Your task to perform on an android device: Open settings on Google Maps Image 0: 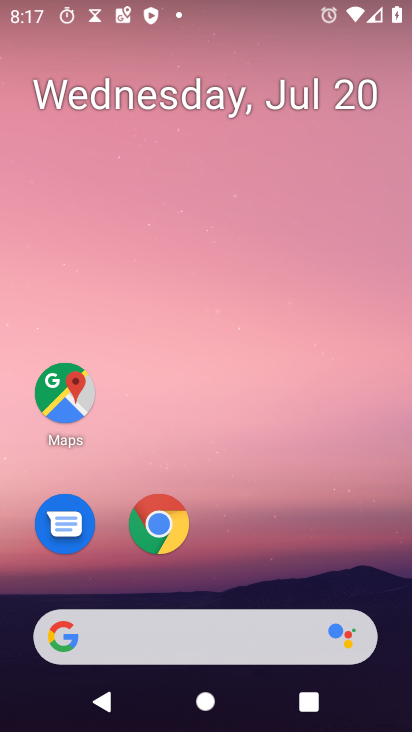
Step 0: click (70, 405)
Your task to perform on an android device: Open settings on Google Maps Image 1: 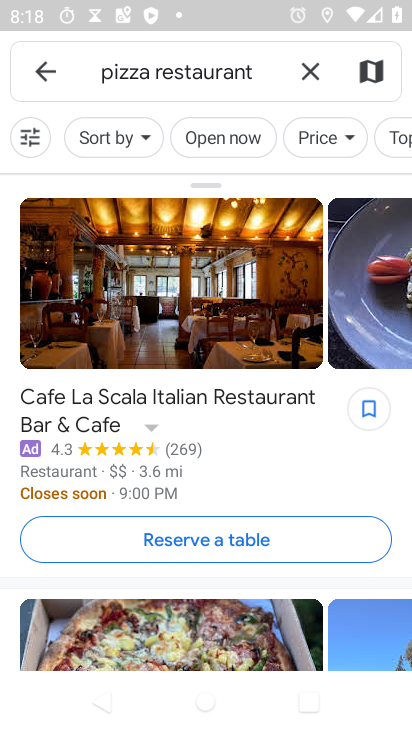
Step 1: click (44, 68)
Your task to perform on an android device: Open settings on Google Maps Image 2: 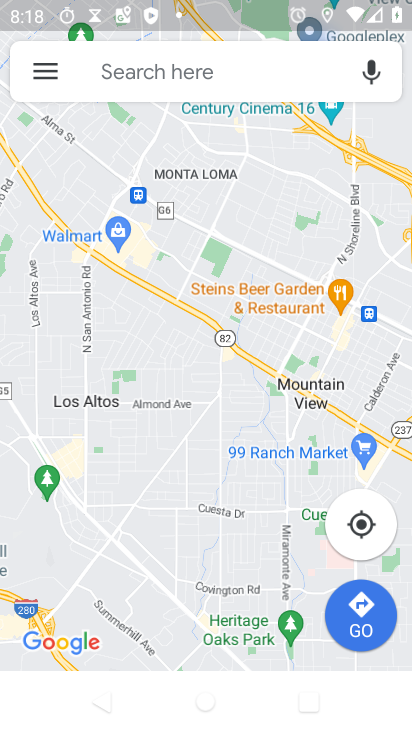
Step 2: click (46, 73)
Your task to perform on an android device: Open settings on Google Maps Image 3: 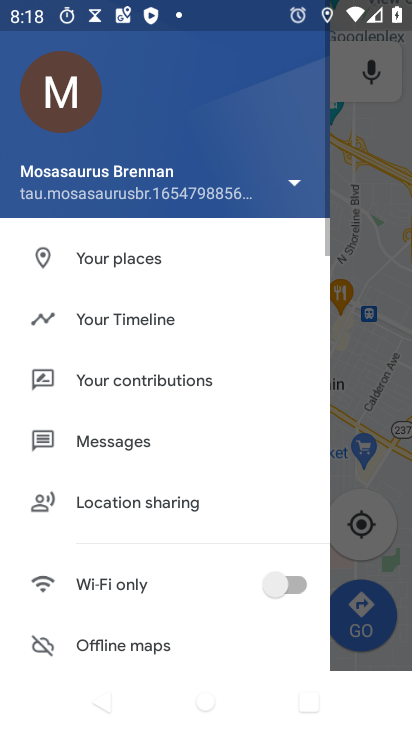
Step 3: drag from (207, 610) to (289, 3)
Your task to perform on an android device: Open settings on Google Maps Image 4: 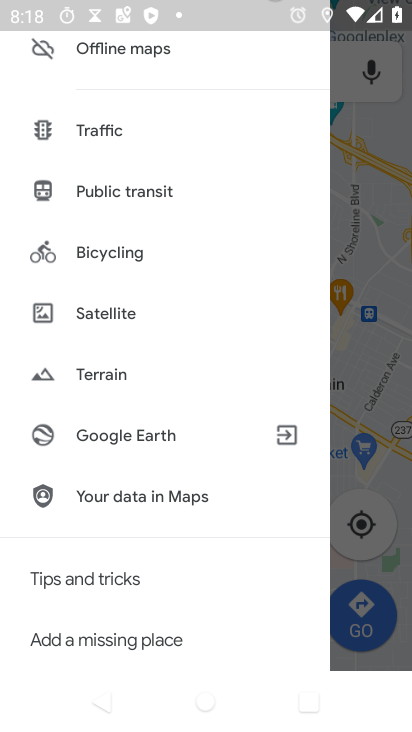
Step 4: drag from (159, 555) to (184, 93)
Your task to perform on an android device: Open settings on Google Maps Image 5: 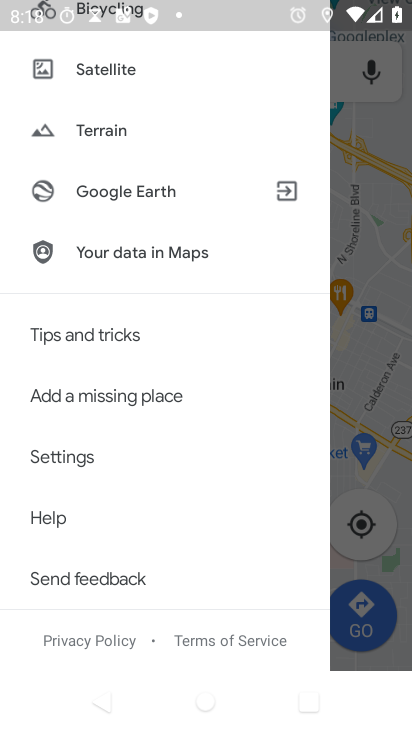
Step 5: click (77, 453)
Your task to perform on an android device: Open settings on Google Maps Image 6: 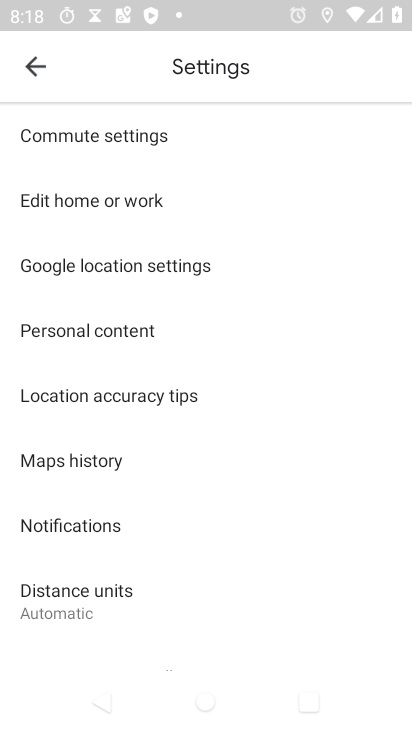
Step 6: task complete